Your task to perform on an android device: Go to ESPN.com Image 0: 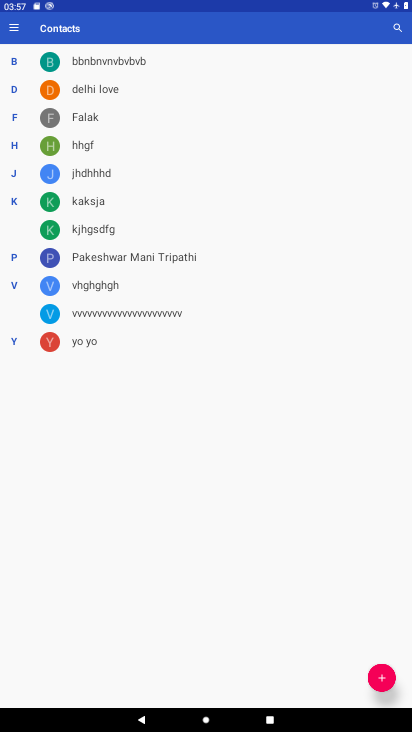
Step 0: press home button
Your task to perform on an android device: Go to ESPN.com Image 1: 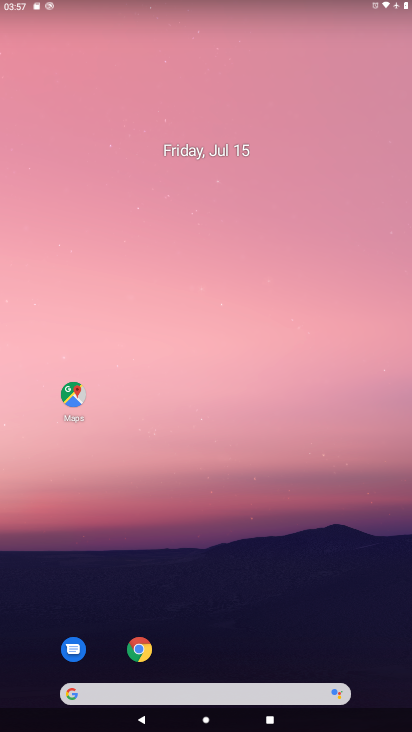
Step 1: click (138, 650)
Your task to perform on an android device: Go to ESPN.com Image 2: 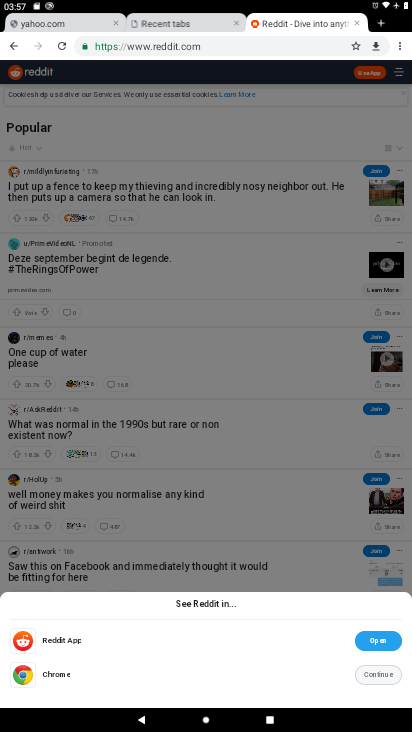
Step 2: click (37, 19)
Your task to perform on an android device: Go to ESPN.com Image 3: 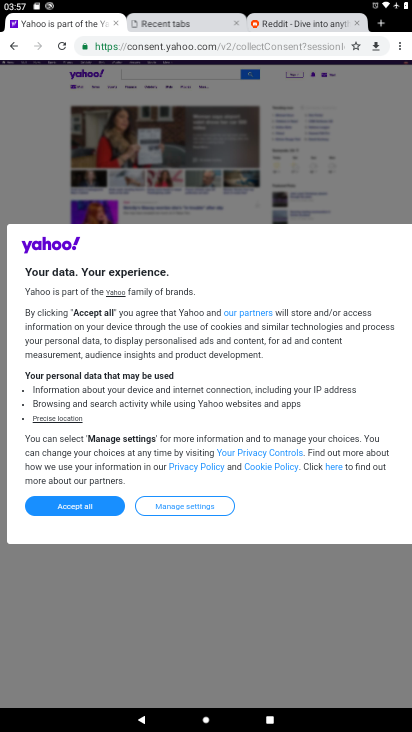
Step 3: click (270, 47)
Your task to perform on an android device: Go to ESPN.com Image 4: 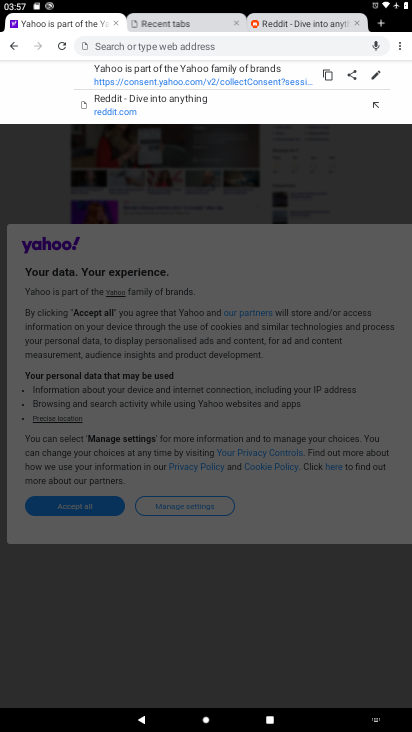
Step 4: type "ESPN.com"
Your task to perform on an android device: Go to ESPN.com Image 5: 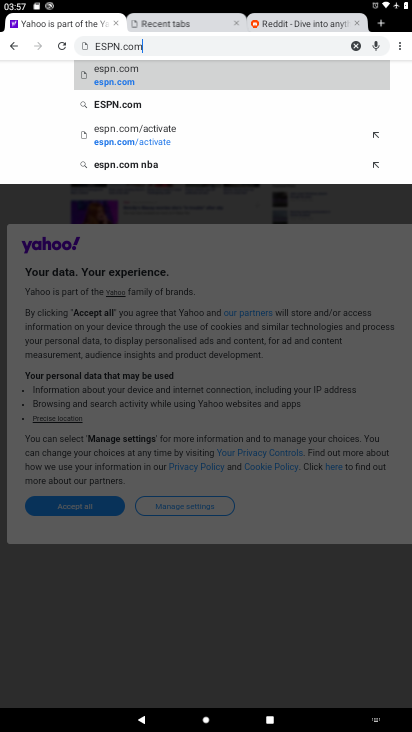
Step 5: click (134, 75)
Your task to perform on an android device: Go to ESPN.com Image 6: 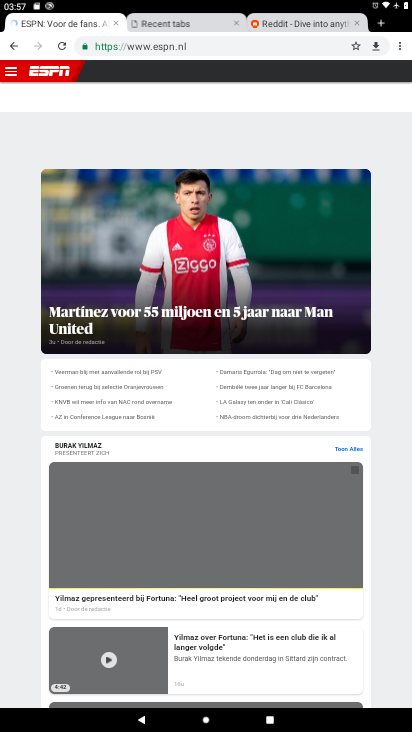
Step 6: task complete